Your task to perform on an android device: toggle notification dots Image 0: 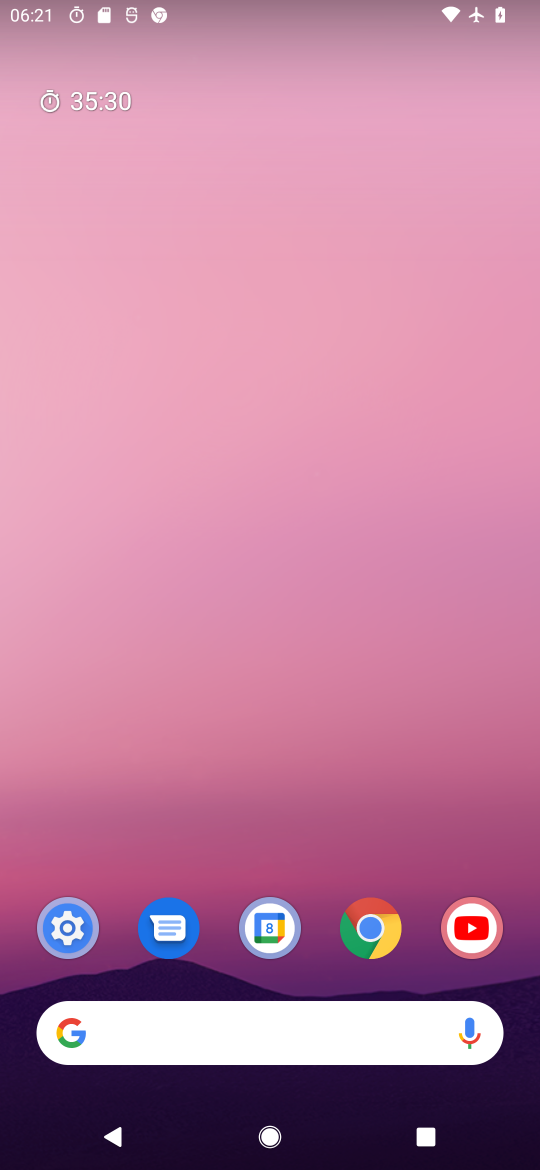
Step 0: click (48, 942)
Your task to perform on an android device: toggle notification dots Image 1: 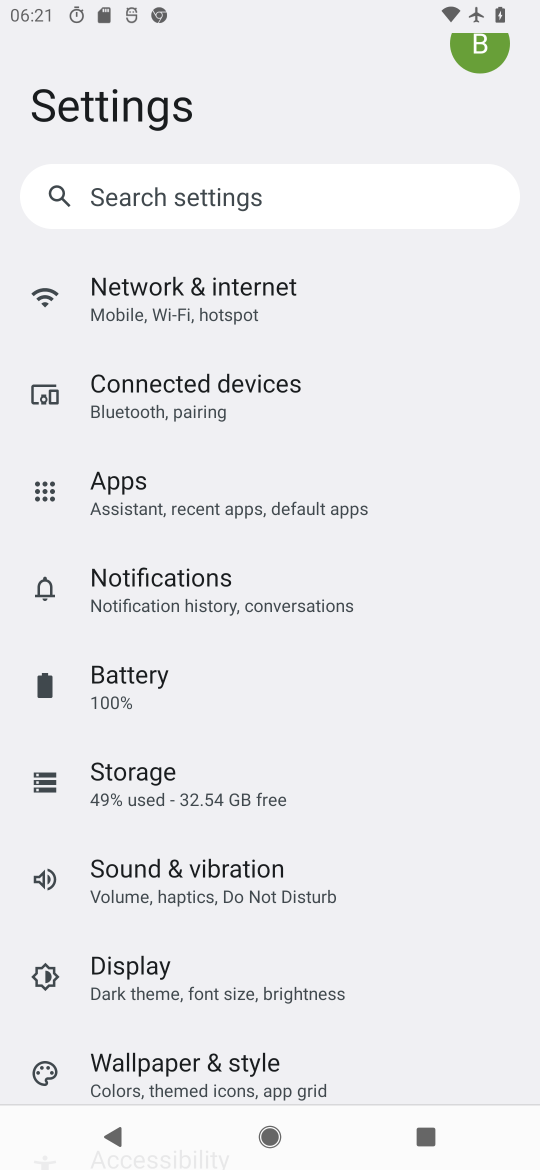
Step 1: click (187, 593)
Your task to perform on an android device: toggle notification dots Image 2: 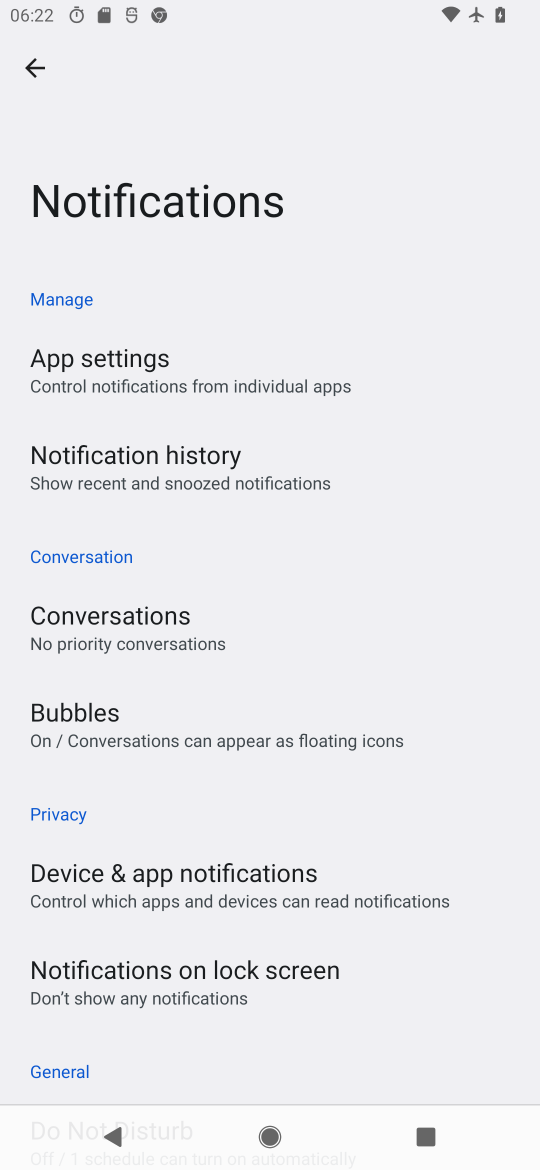
Step 2: drag from (224, 963) to (240, 759)
Your task to perform on an android device: toggle notification dots Image 3: 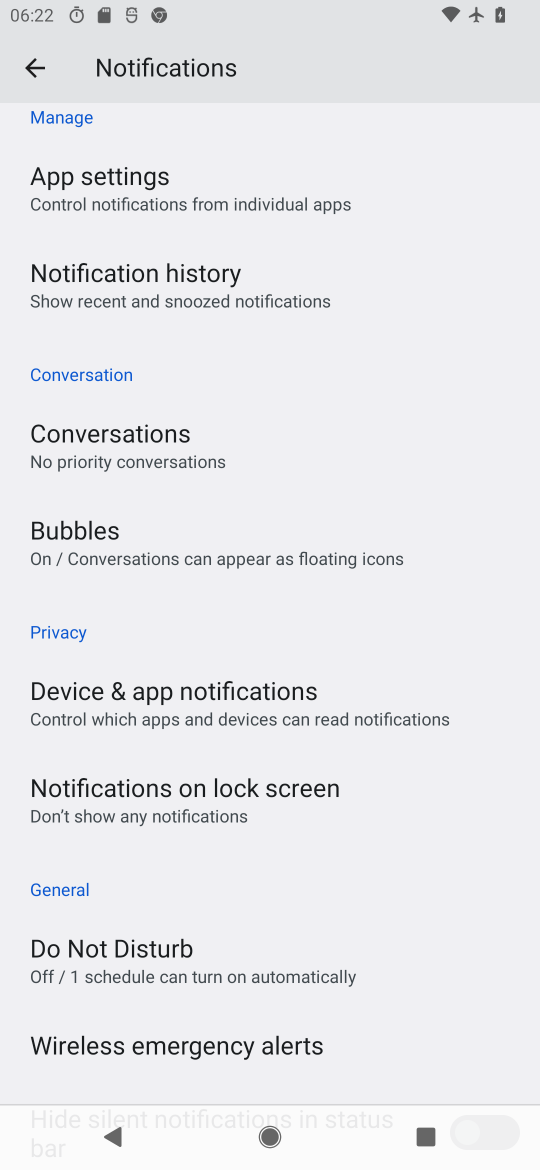
Step 3: drag from (234, 736) to (256, 159)
Your task to perform on an android device: toggle notification dots Image 4: 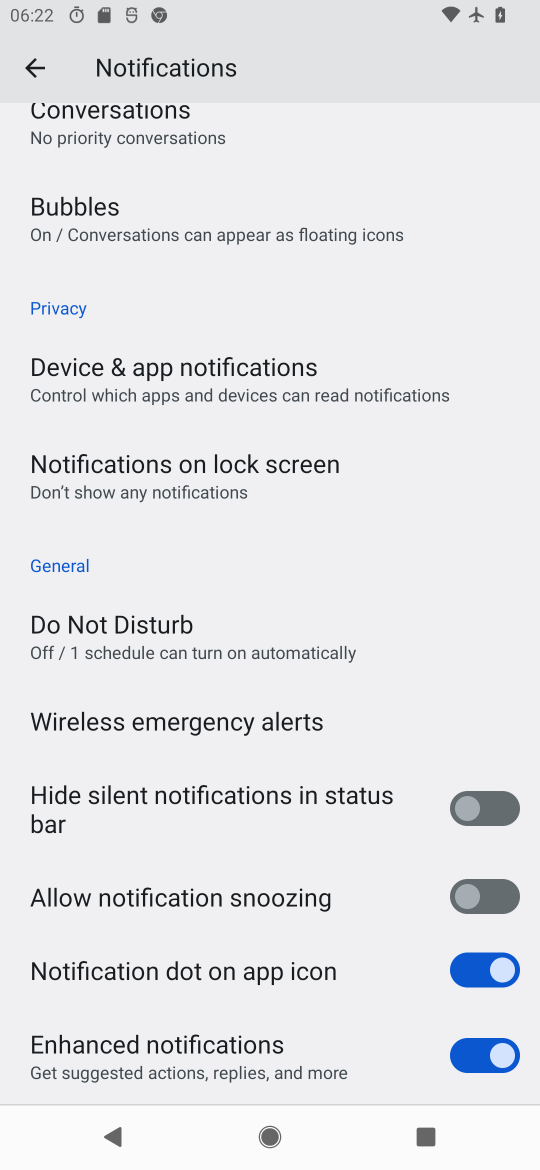
Step 4: drag from (348, 925) to (335, 443)
Your task to perform on an android device: toggle notification dots Image 5: 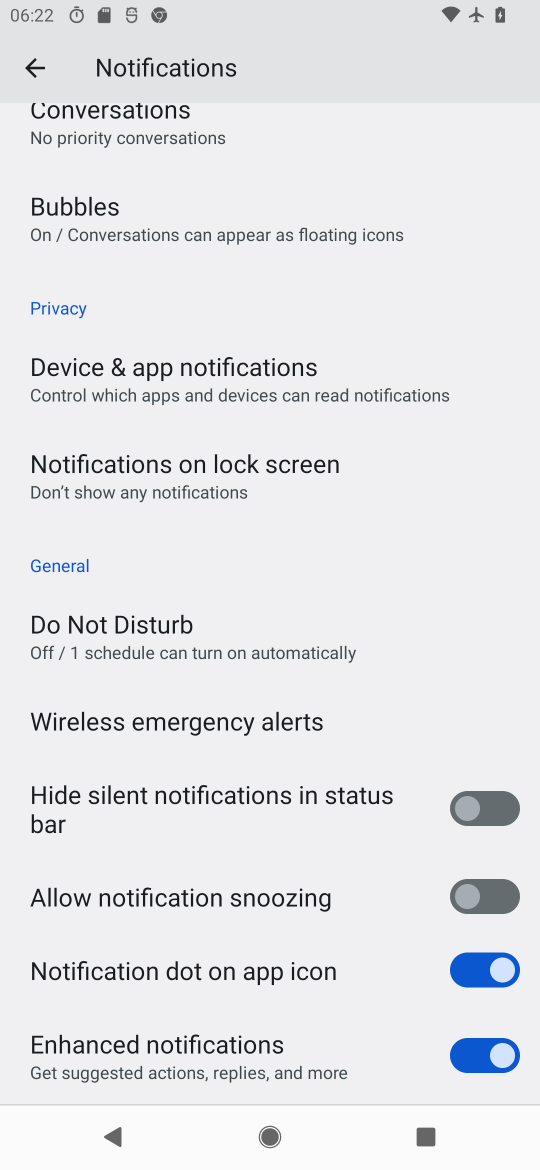
Step 5: click (463, 972)
Your task to perform on an android device: toggle notification dots Image 6: 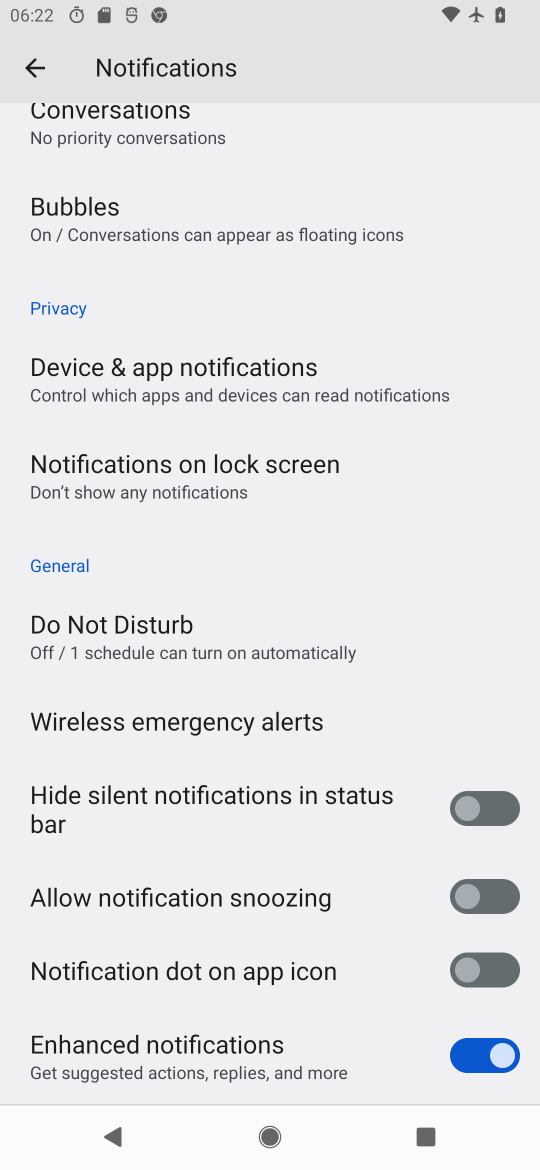
Step 6: task complete